Your task to perform on an android device: Open Maps and search for coffee Image 0: 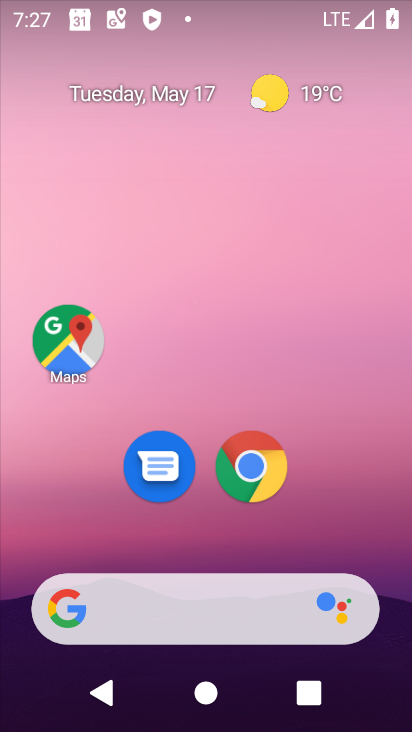
Step 0: click (65, 347)
Your task to perform on an android device: Open Maps and search for coffee Image 1: 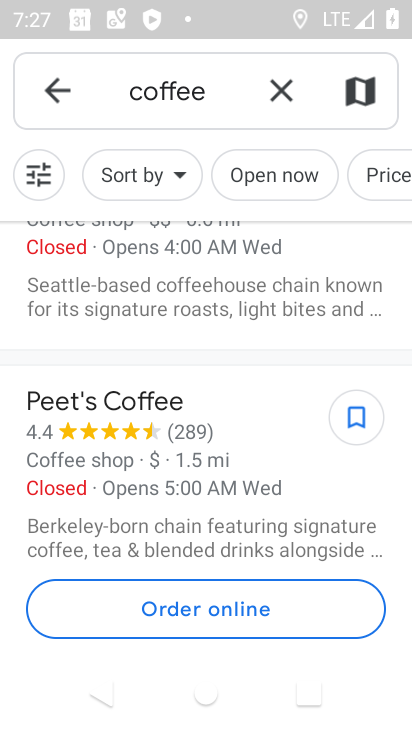
Step 1: task complete